Your task to perform on an android device: check google app version Image 0: 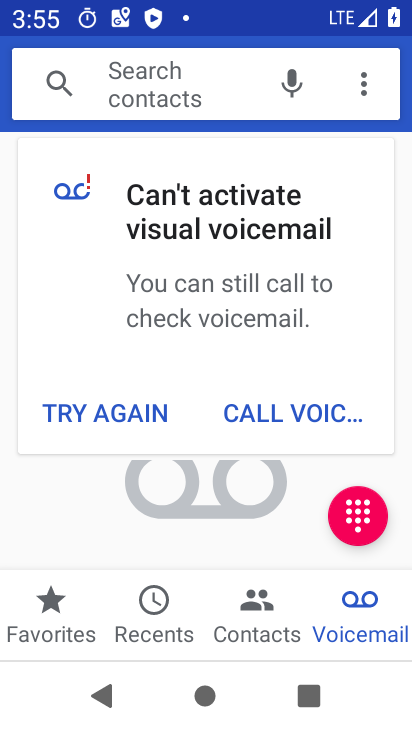
Step 0: press home button
Your task to perform on an android device: check google app version Image 1: 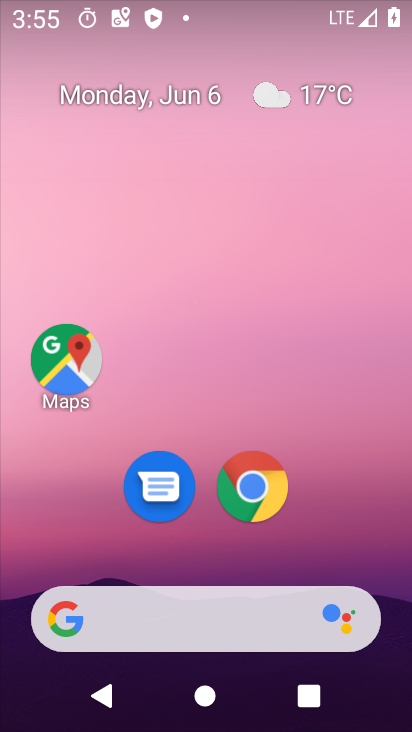
Step 1: drag from (313, 484) to (274, 75)
Your task to perform on an android device: check google app version Image 2: 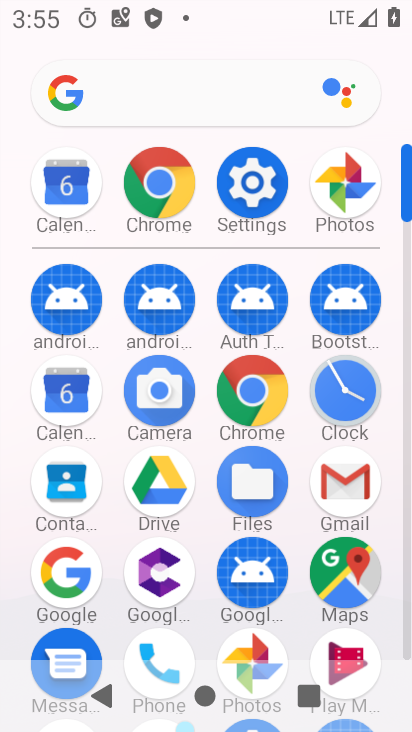
Step 2: click (44, 583)
Your task to perform on an android device: check google app version Image 3: 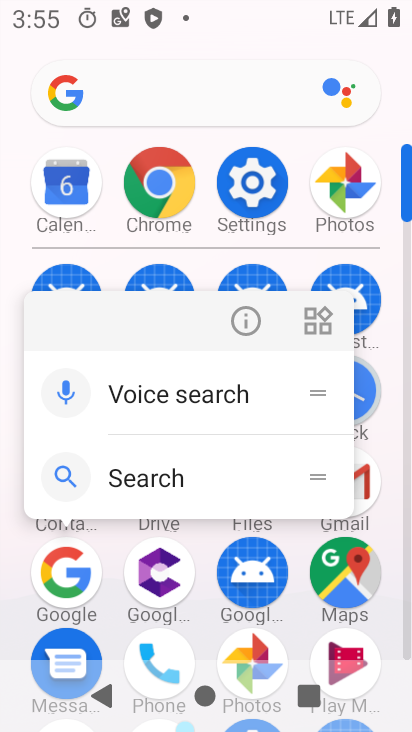
Step 3: click (247, 313)
Your task to perform on an android device: check google app version Image 4: 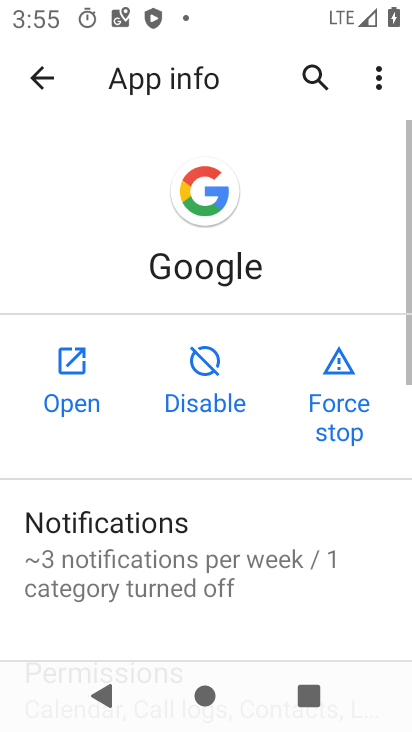
Step 4: drag from (295, 563) to (221, 77)
Your task to perform on an android device: check google app version Image 5: 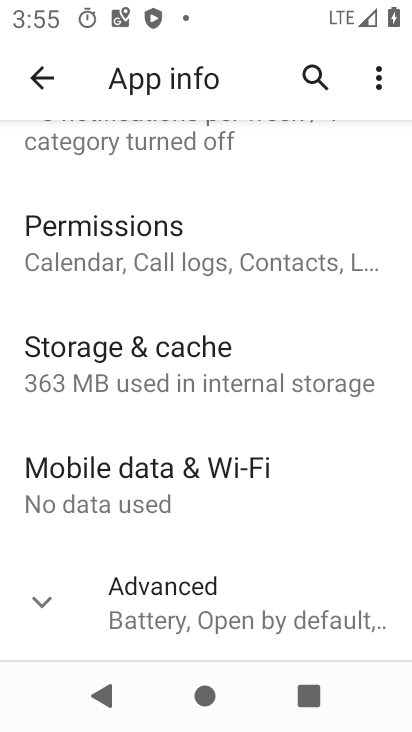
Step 5: drag from (203, 556) to (275, 130)
Your task to perform on an android device: check google app version Image 6: 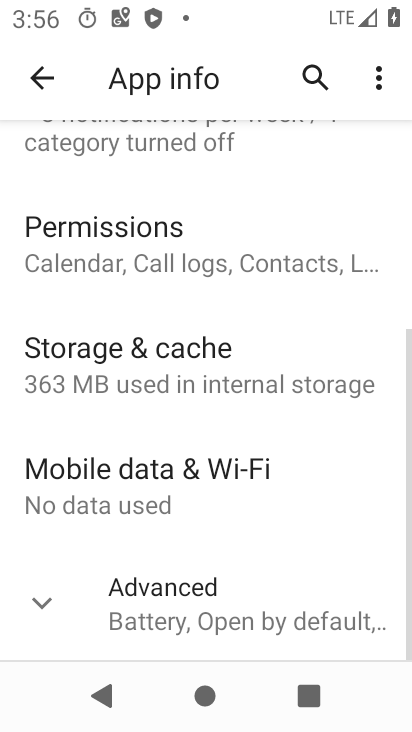
Step 6: click (175, 612)
Your task to perform on an android device: check google app version Image 7: 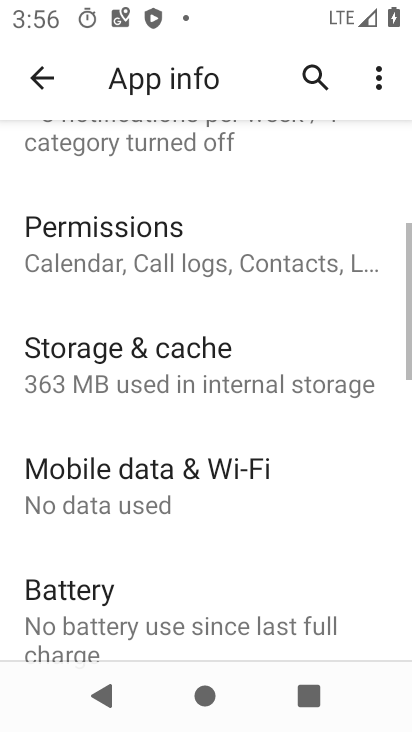
Step 7: task complete